Your task to perform on an android device: manage bookmarks in the chrome app Image 0: 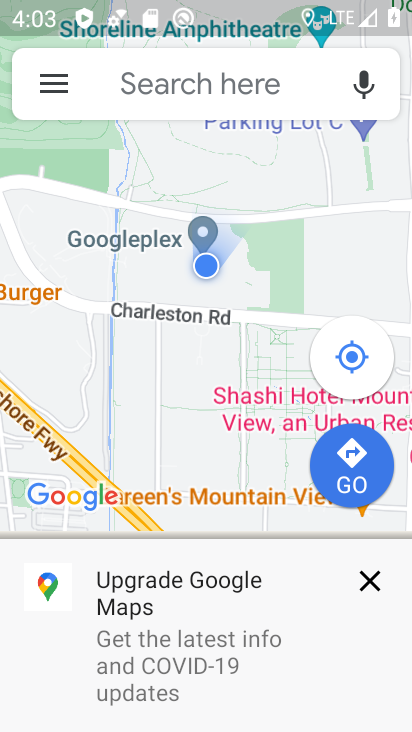
Step 0: press back button
Your task to perform on an android device: manage bookmarks in the chrome app Image 1: 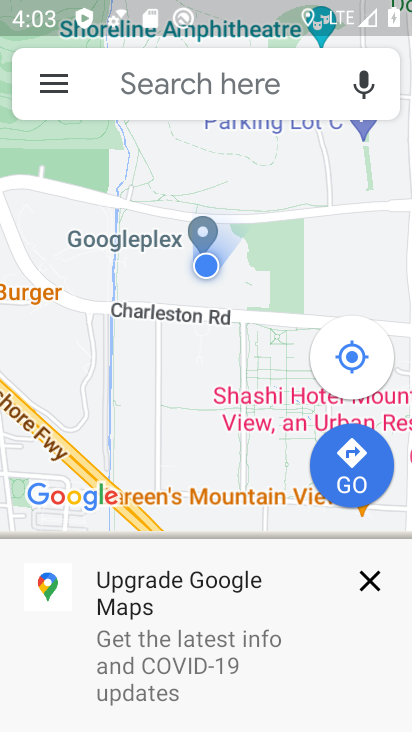
Step 1: press back button
Your task to perform on an android device: manage bookmarks in the chrome app Image 2: 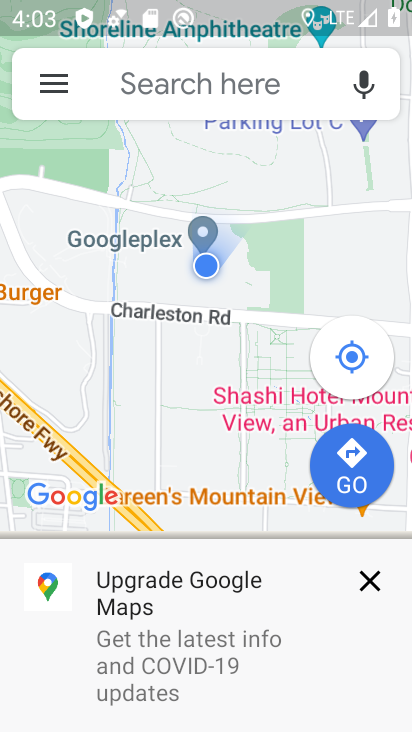
Step 2: press home button
Your task to perform on an android device: manage bookmarks in the chrome app Image 3: 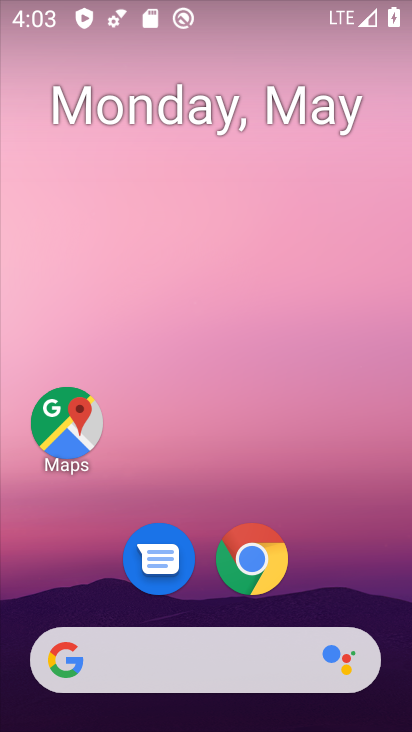
Step 3: drag from (323, 576) to (284, 71)
Your task to perform on an android device: manage bookmarks in the chrome app Image 4: 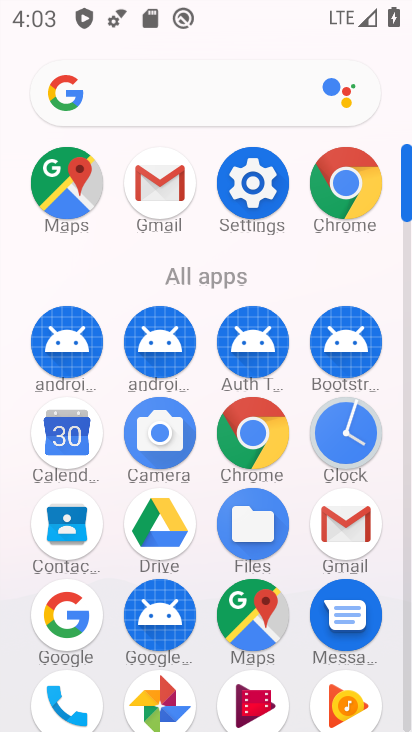
Step 4: click (340, 182)
Your task to perform on an android device: manage bookmarks in the chrome app Image 5: 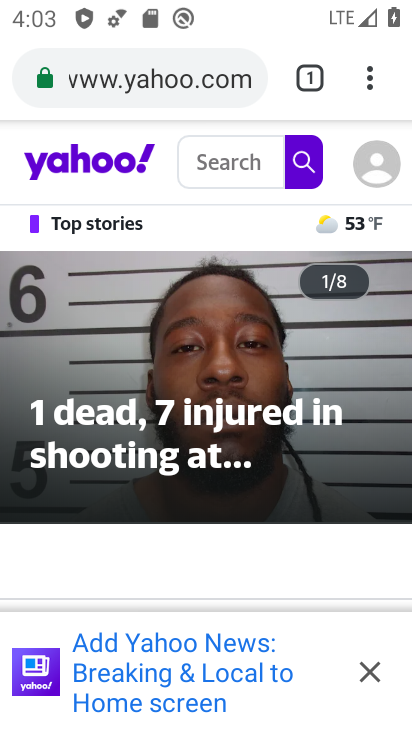
Step 5: drag from (367, 72) to (255, 248)
Your task to perform on an android device: manage bookmarks in the chrome app Image 6: 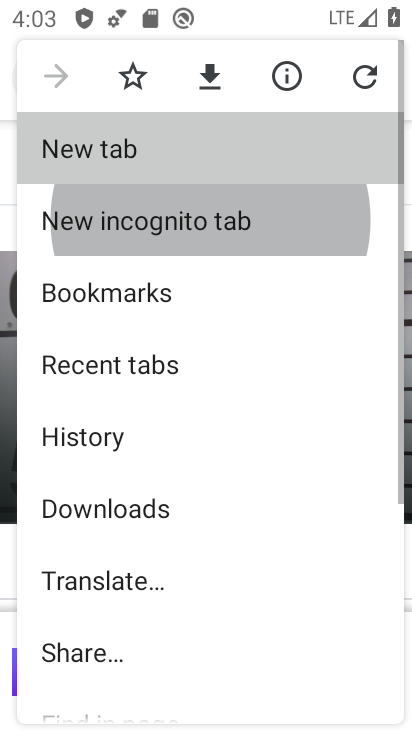
Step 6: drag from (229, 283) to (188, 299)
Your task to perform on an android device: manage bookmarks in the chrome app Image 7: 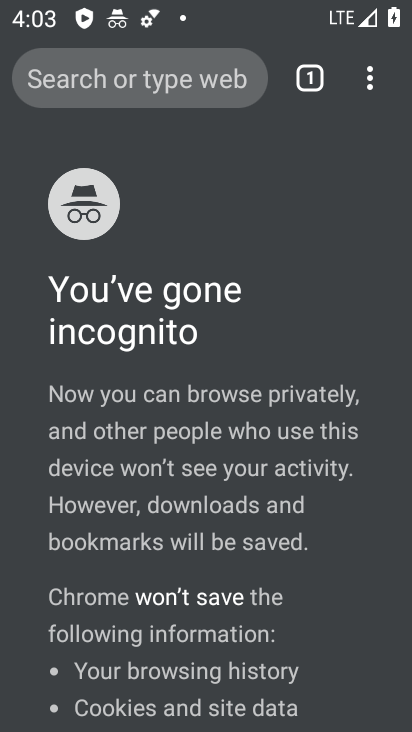
Step 7: drag from (366, 73) to (160, 299)
Your task to perform on an android device: manage bookmarks in the chrome app Image 8: 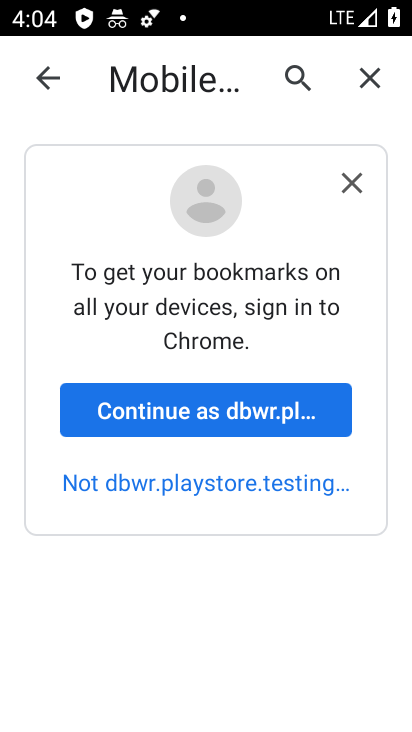
Step 8: click (345, 176)
Your task to perform on an android device: manage bookmarks in the chrome app Image 9: 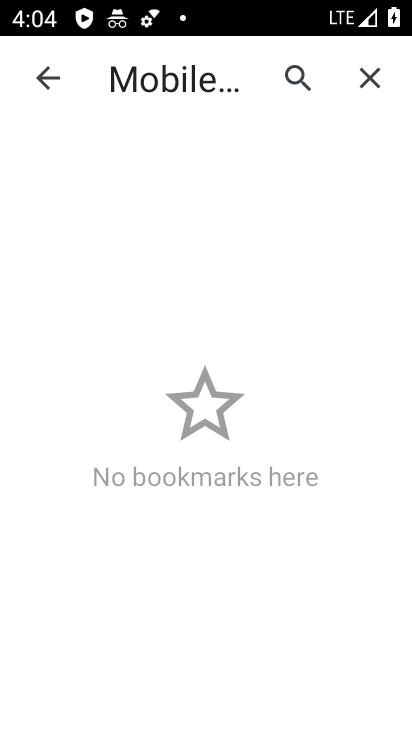
Step 9: task complete